Your task to perform on an android device: set the timer Image 0: 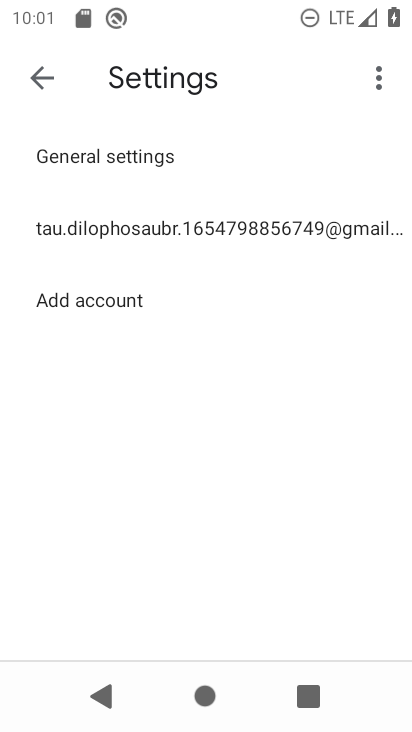
Step 0: press back button
Your task to perform on an android device: set the timer Image 1: 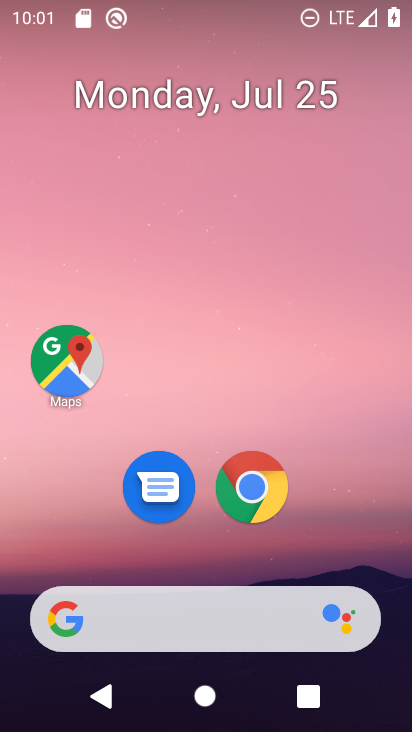
Step 1: drag from (169, 565) to (240, 1)
Your task to perform on an android device: set the timer Image 2: 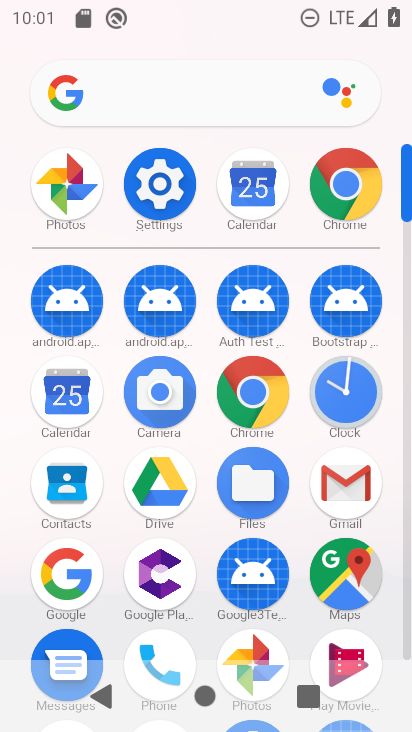
Step 2: click (335, 389)
Your task to perform on an android device: set the timer Image 3: 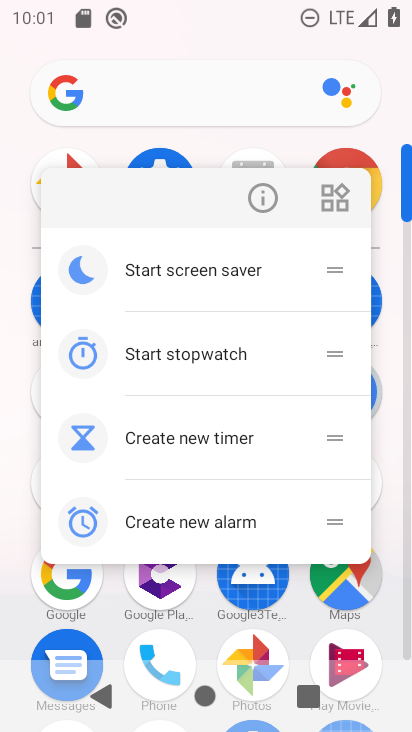
Step 3: click (375, 389)
Your task to perform on an android device: set the timer Image 4: 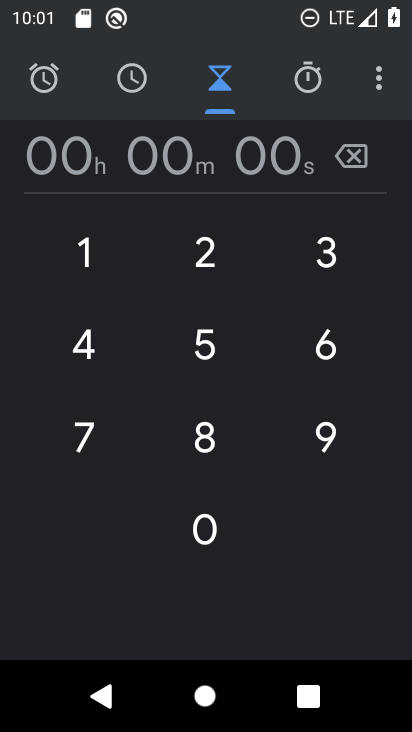
Step 4: click (187, 253)
Your task to perform on an android device: set the timer Image 5: 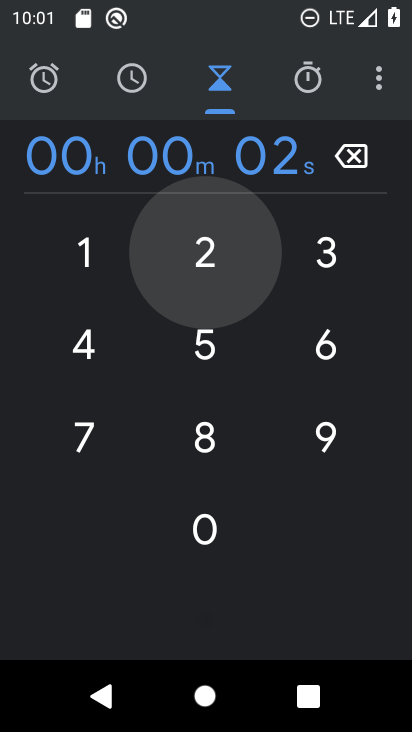
Step 5: click (326, 249)
Your task to perform on an android device: set the timer Image 6: 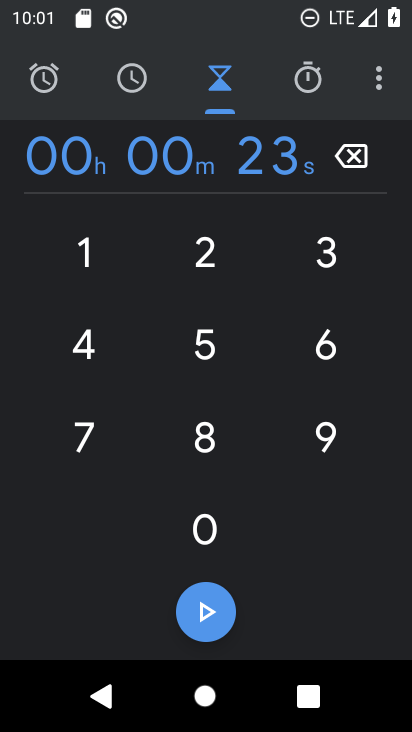
Step 6: click (180, 348)
Your task to perform on an android device: set the timer Image 7: 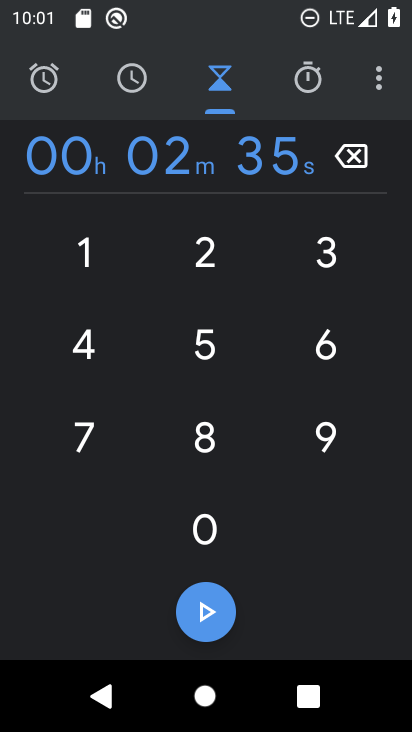
Step 7: click (96, 338)
Your task to perform on an android device: set the timer Image 8: 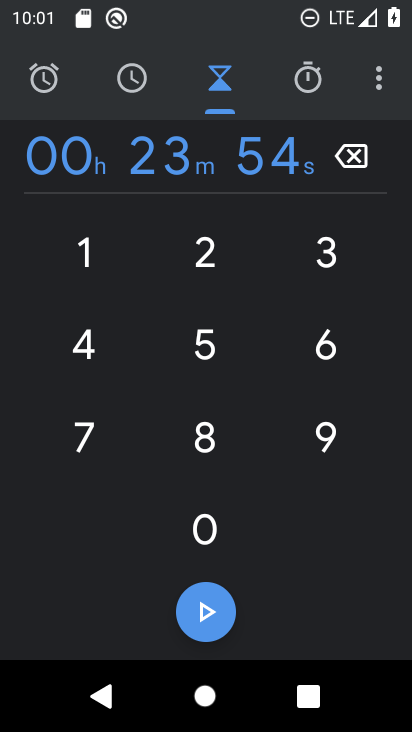
Step 8: click (311, 345)
Your task to perform on an android device: set the timer Image 9: 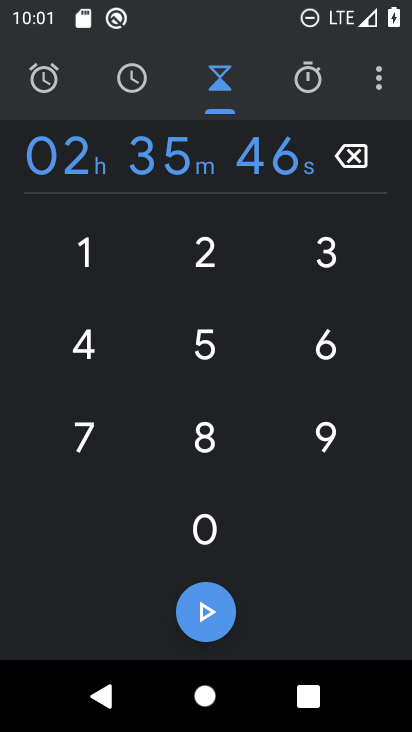
Step 9: click (209, 611)
Your task to perform on an android device: set the timer Image 10: 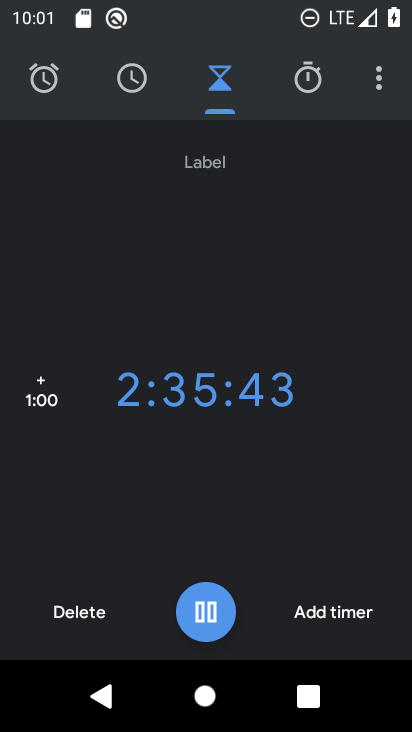
Step 10: task complete